Your task to perform on an android device: What's the price of the new iPhone on eBay? Image 0: 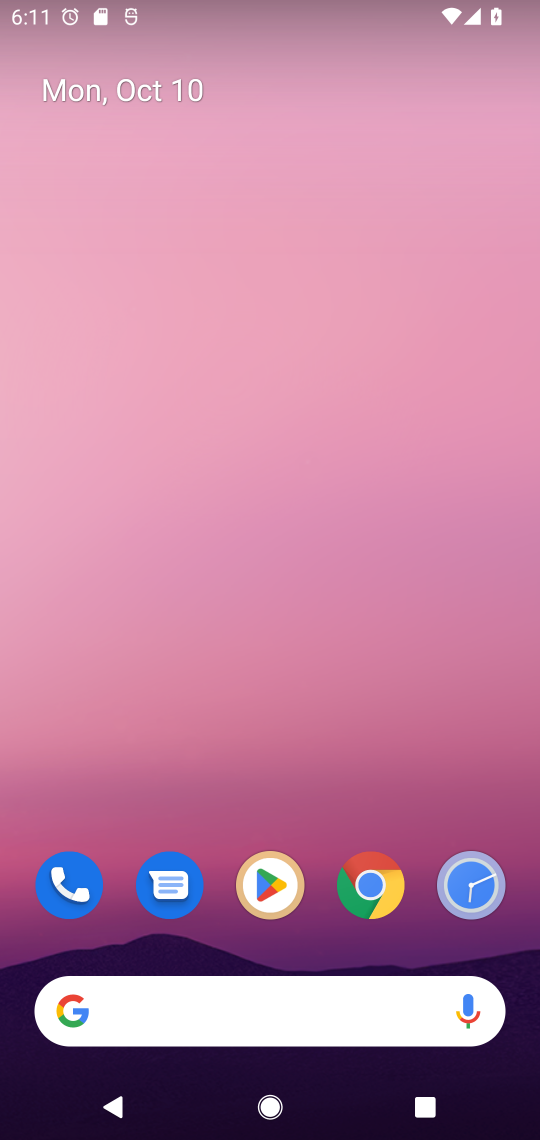
Step 0: click (357, 899)
Your task to perform on an android device: What's the price of the new iPhone on eBay? Image 1: 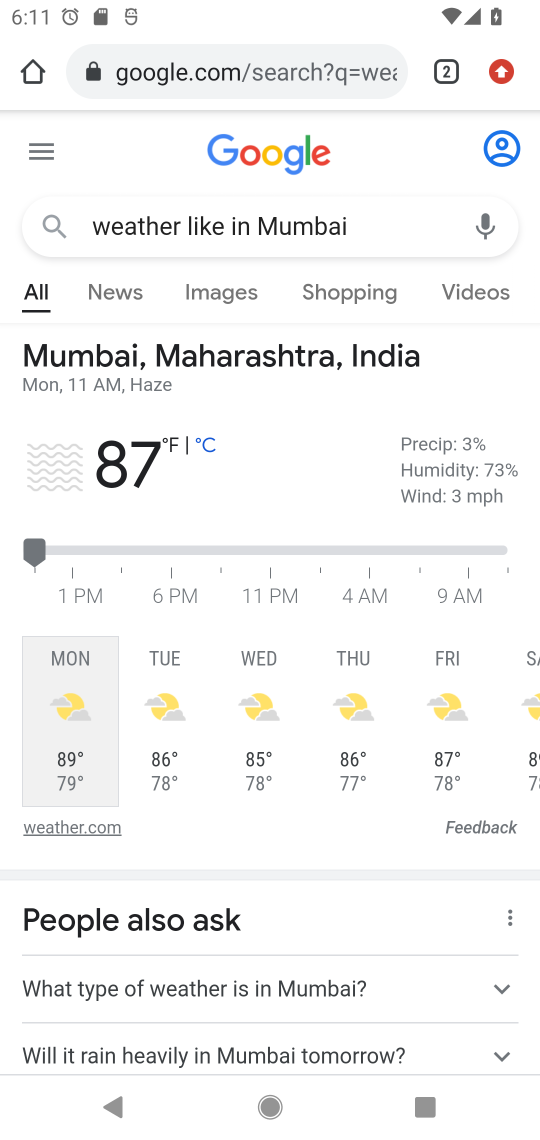
Step 1: click (215, 225)
Your task to perform on an android device: What's the price of the new iPhone on eBay? Image 2: 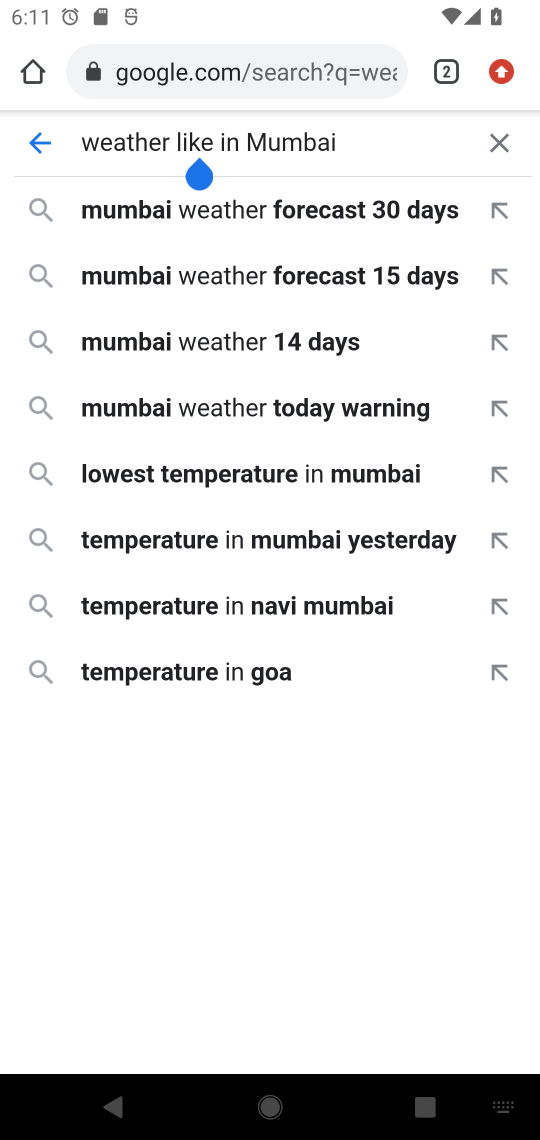
Step 2: click (310, 72)
Your task to perform on an android device: What's the price of the new iPhone on eBay? Image 3: 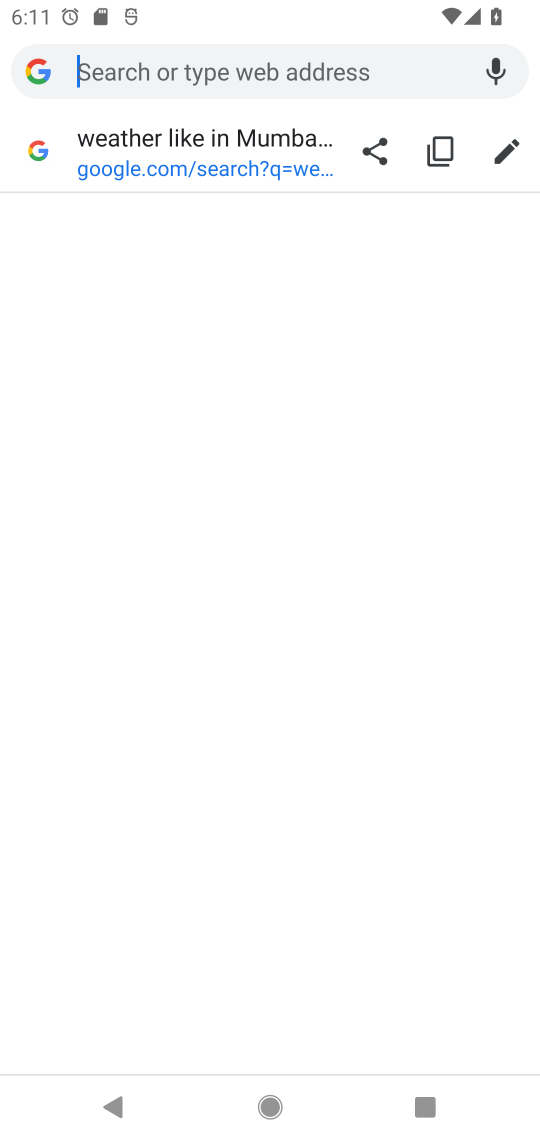
Step 3: type "price of the new iPhone on eBay"
Your task to perform on an android device: What's the price of the new iPhone on eBay? Image 4: 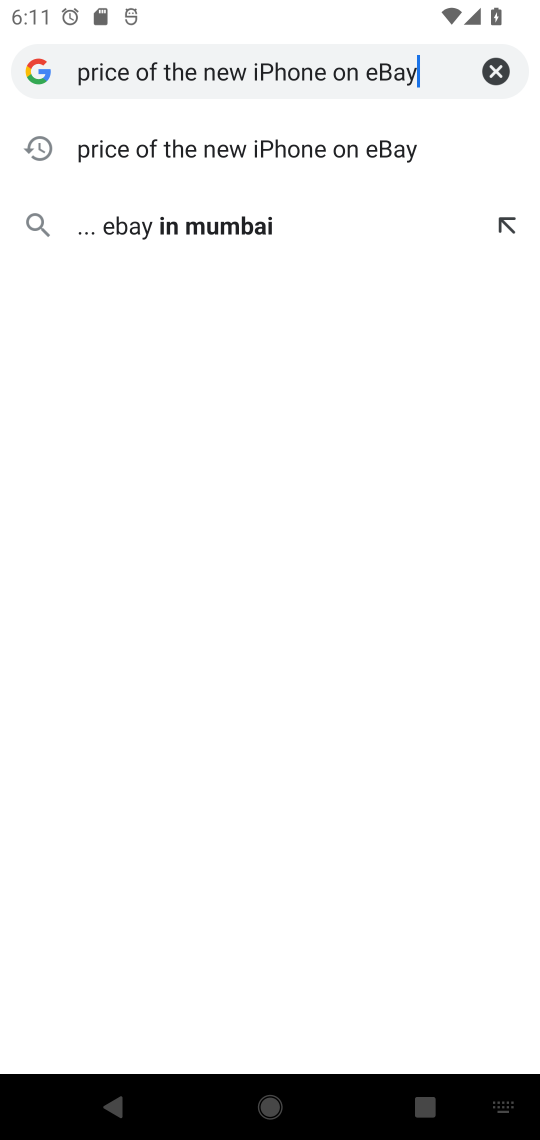
Step 4: click (299, 167)
Your task to perform on an android device: What's the price of the new iPhone on eBay? Image 5: 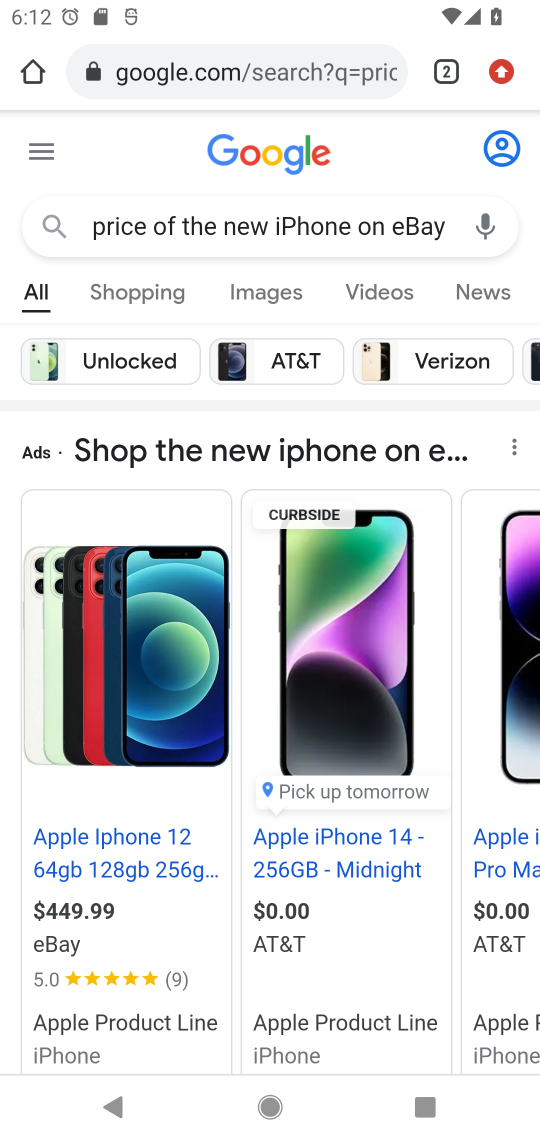
Step 5: drag from (283, 983) to (354, 311)
Your task to perform on an android device: What's the price of the new iPhone on eBay? Image 6: 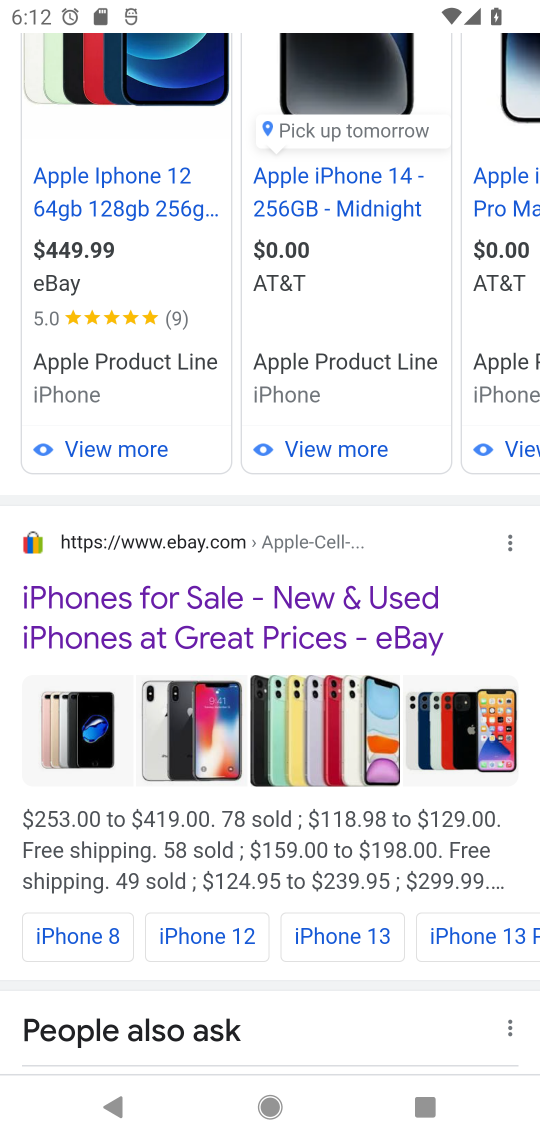
Step 6: click (258, 611)
Your task to perform on an android device: What's the price of the new iPhone on eBay? Image 7: 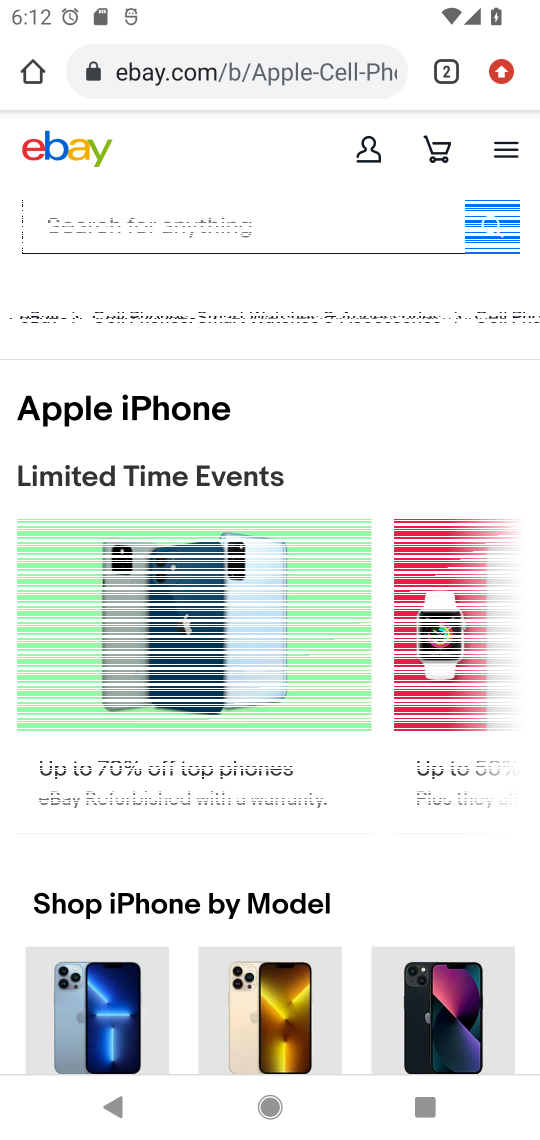
Step 7: drag from (402, 880) to (382, 509)
Your task to perform on an android device: What's the price of the new iPhone on eBay? Image 8: 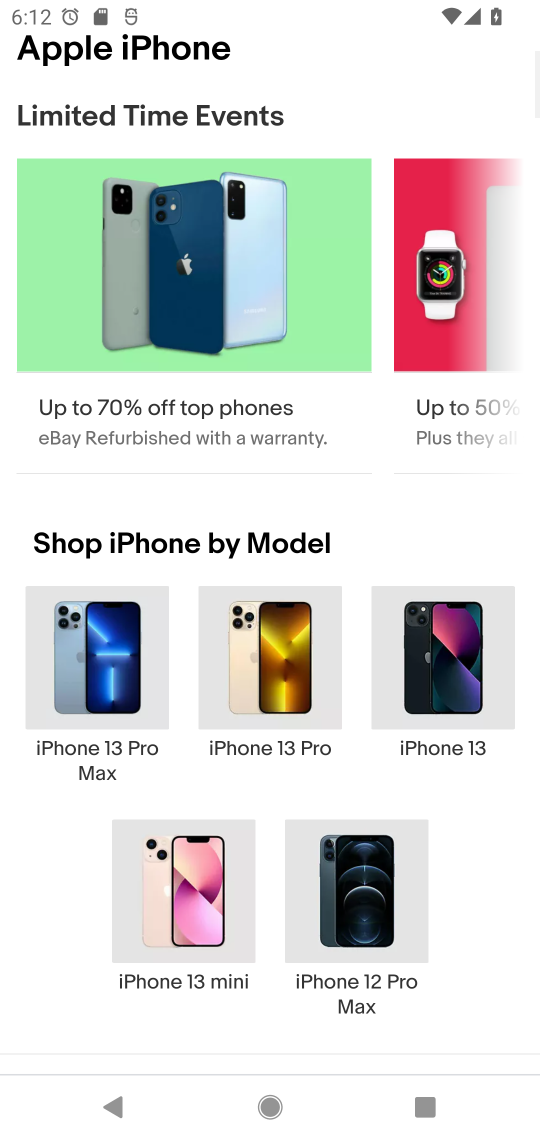
Step 8: click (67, 685)
Your task to perform on an android device: What's the price of the new iPhone on eBay? Image 9: 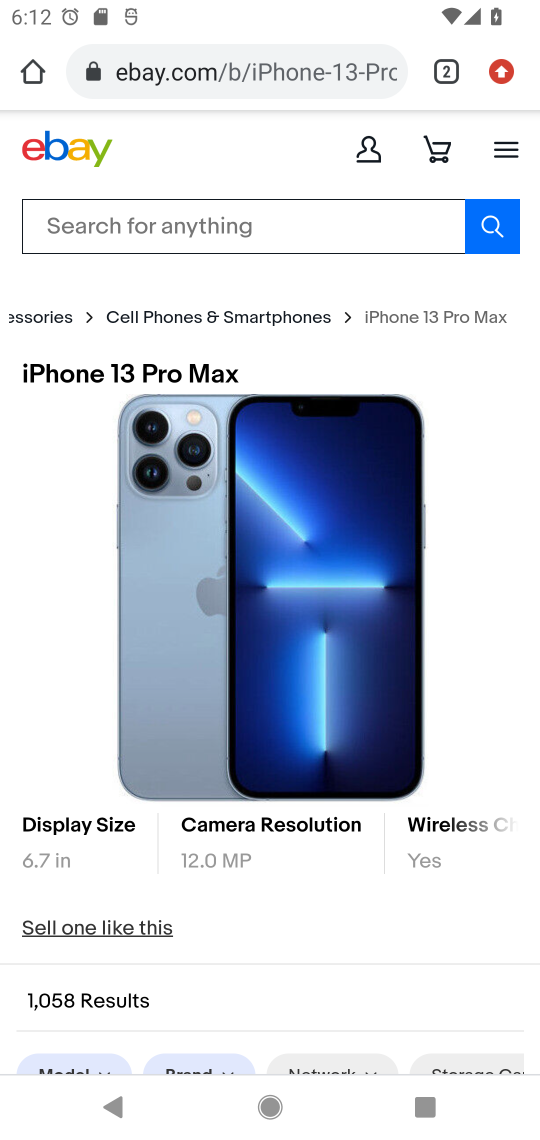
Step 9: task complete